Your task to perform on an android device: change timer sound Image 0: 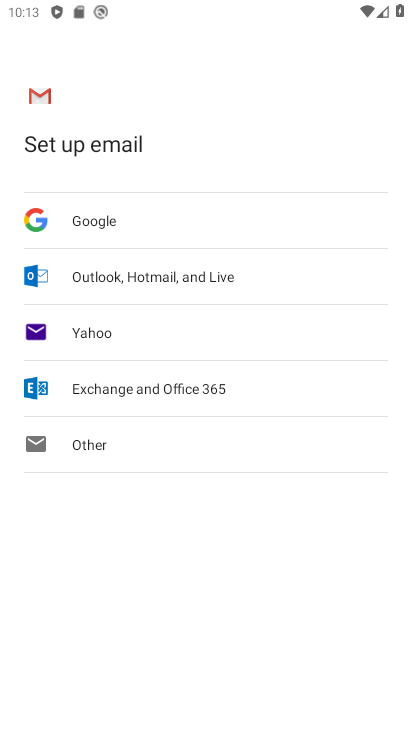
Step 0: press home button
Your task to perform on an android device: change timer sound Image 1: 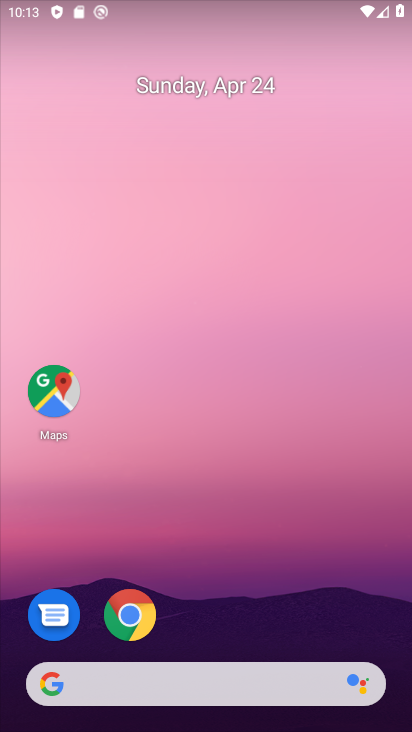
Step 1: drag from (225, 640) to (241, 152)
Your task to perform on an android device: change timer sound Image 2: 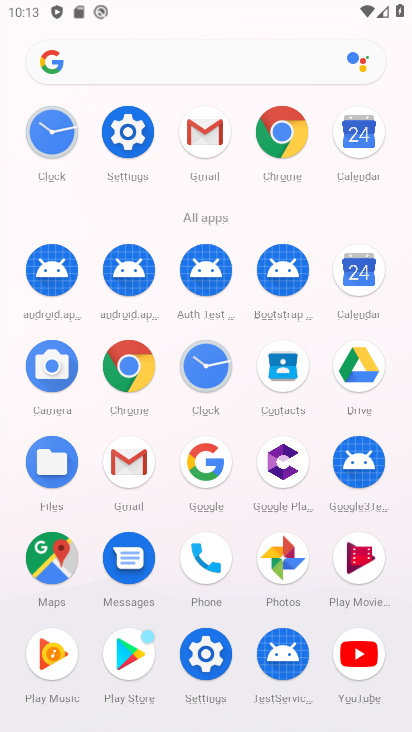
Step 2: click (200, 361)
Your task to perform on an android device: change timer sound Image 3: 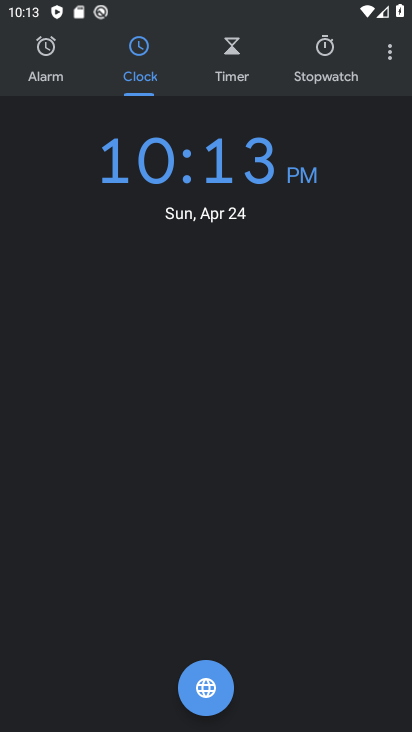
Step 3: click (388, 54)
Your task to perform on an android device: change timer sound Image 4: 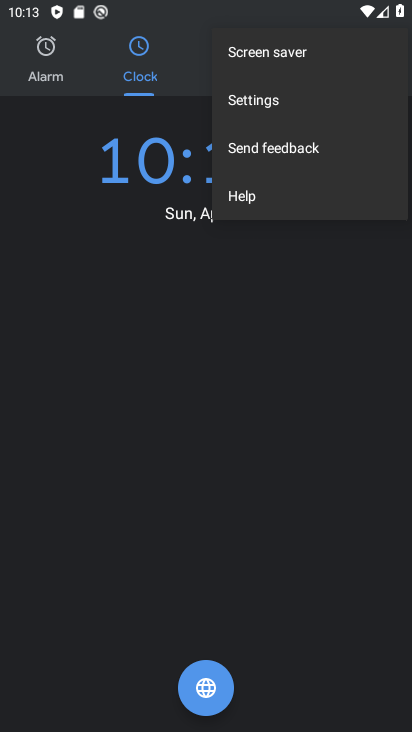
Step 4: click (284, 98)
Your task to perform on an android device: change timer sound Image 5: 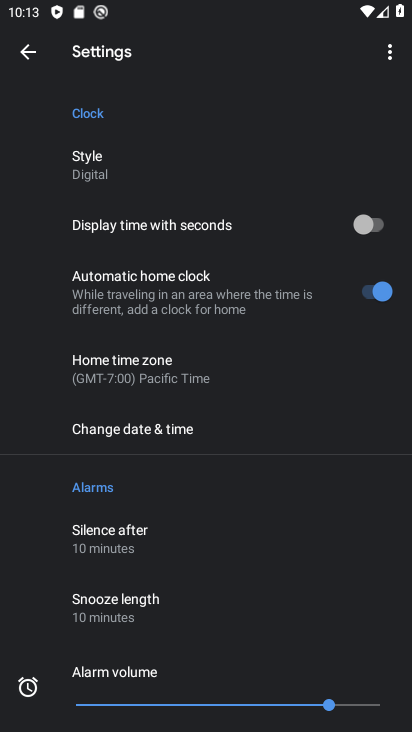
Step 5: drag from (210, 595) to (236, 259)
Your task to perform on an android device: change timer sound Image 6: 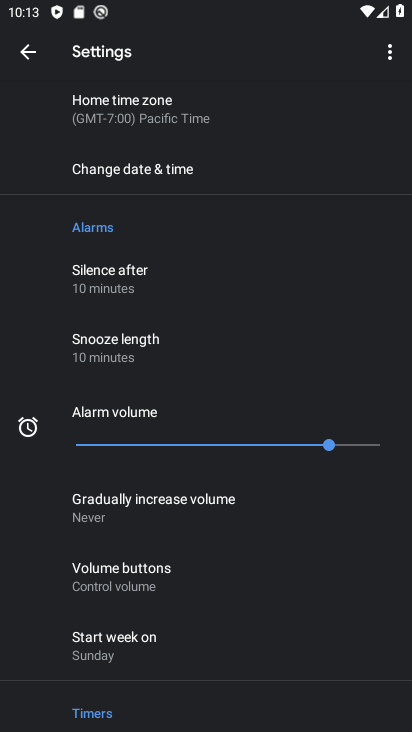
Step 6: drag from (167, 621) to (215, 205)
Your task to perform on an android device: change timer sound Image 7: 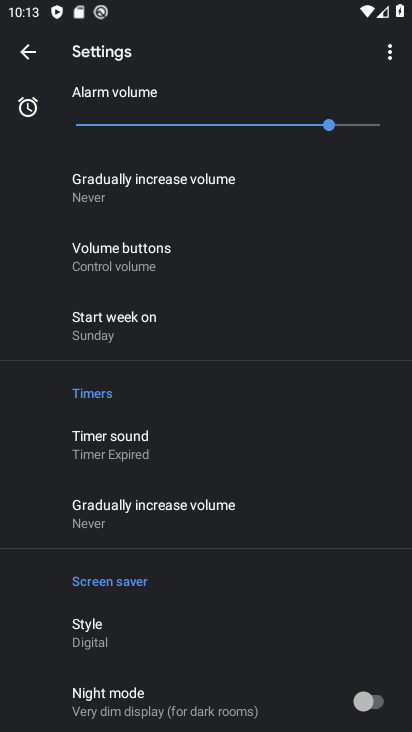
Step 7: click (153, 577)
Your task to perform on an android device: change timer sound Image 8: 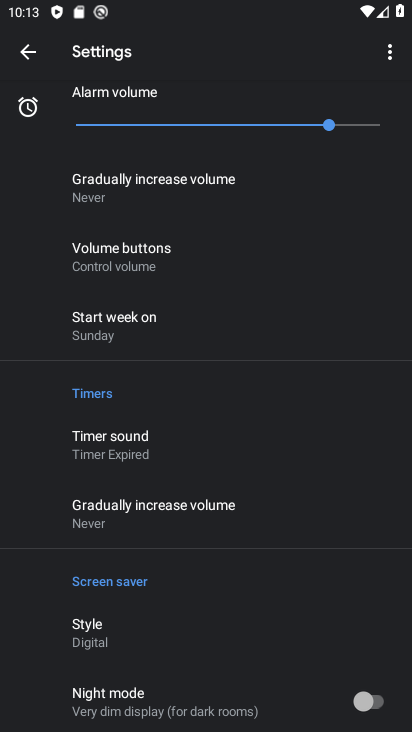
Step 8: click (163, 440)
Your task to perform on an android device: change timer sound Image 9: 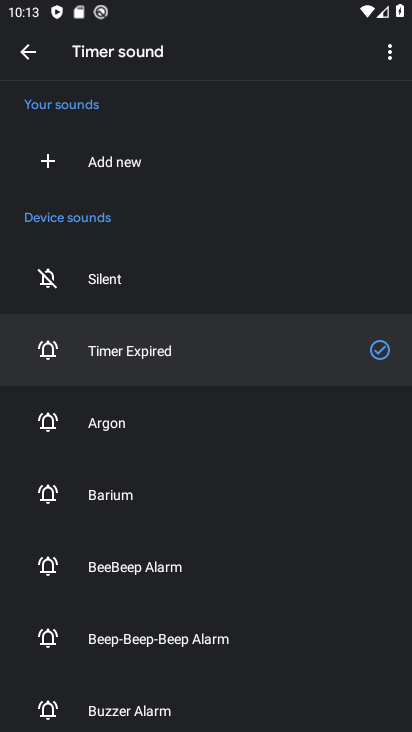
Step 9: click (181, 635)
Your task to perform on an android device: change timer sound Image 10: 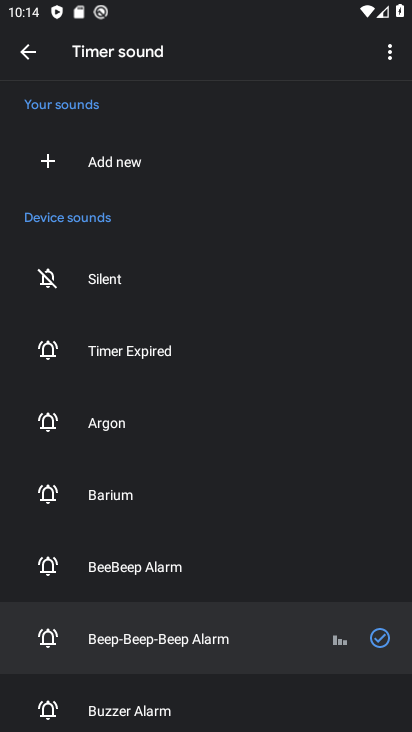
Step 10: task complete